Your task to perform on an android device: turn off data saver in the chrome app Image 0: 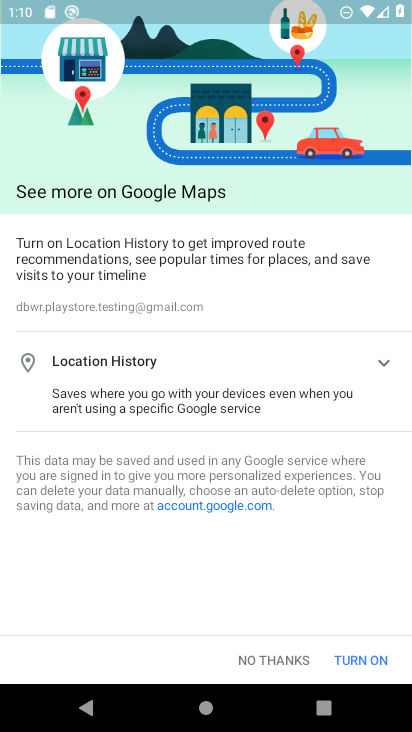
Step 0: click (372, 651)
Your task to perform on an android device: turn off data saver in the chrome app Image 1: 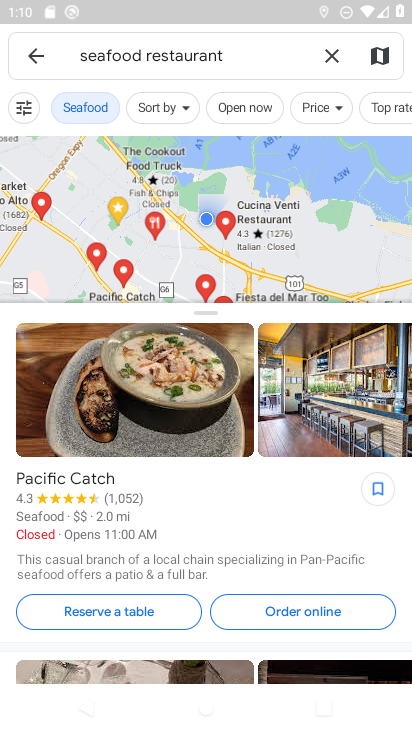
Step 1: click (338, 51)
Your task to perform on an android device: turn off data saver in the chrome app Image 2: 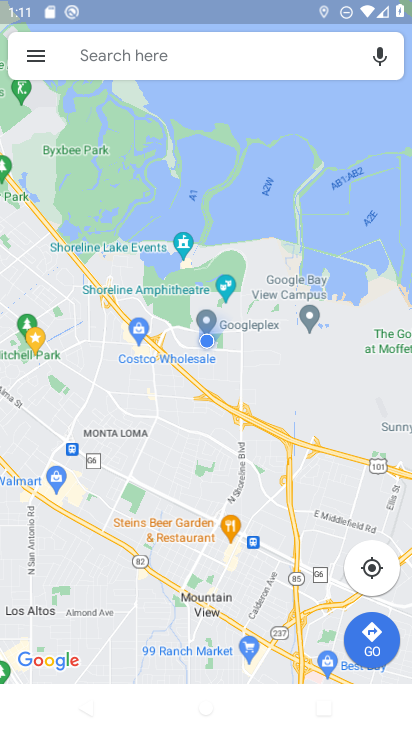
Step 2: press home button
Your task to perform on an android device: turn off data saver in the chrome app Image 3: 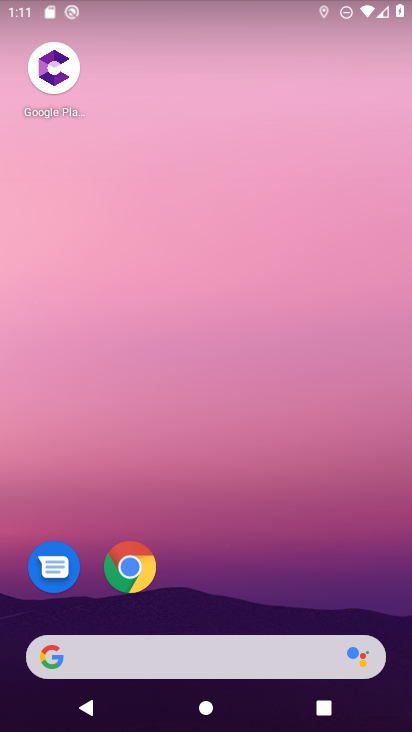
Step 3: drag from (390, 702) to (372, 75)
Your task to perform on an android device: turn off data saver in the chrome app Image 4: 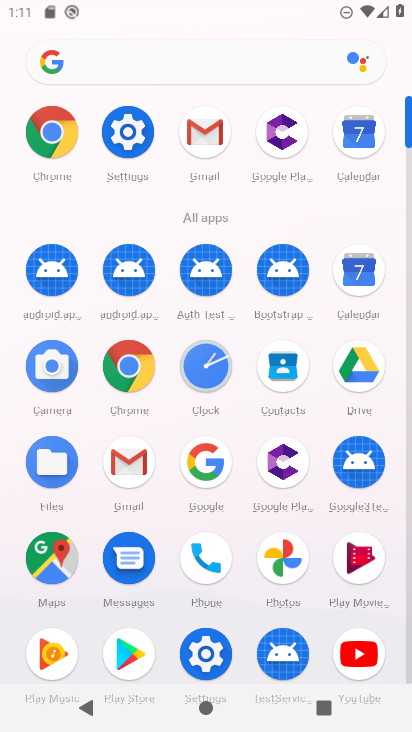
Step 4: click (60, 126)
Your task to perform on an android device: turn off data saver in the chrome app Image 5: 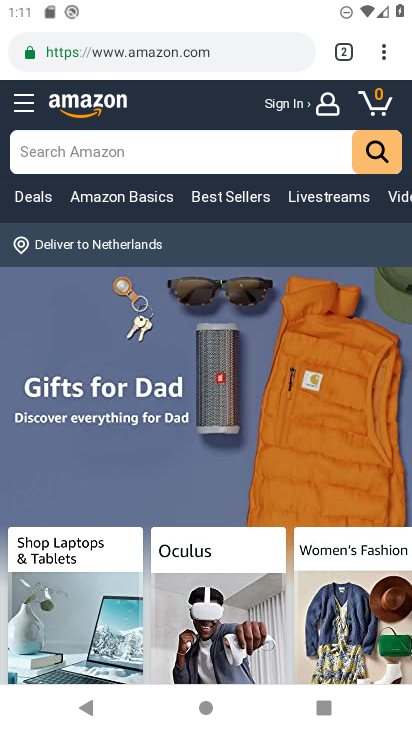
Step 5: click (378, 44)
Your task to perform on an android device: turn off data saver in the chrome app Image 6: 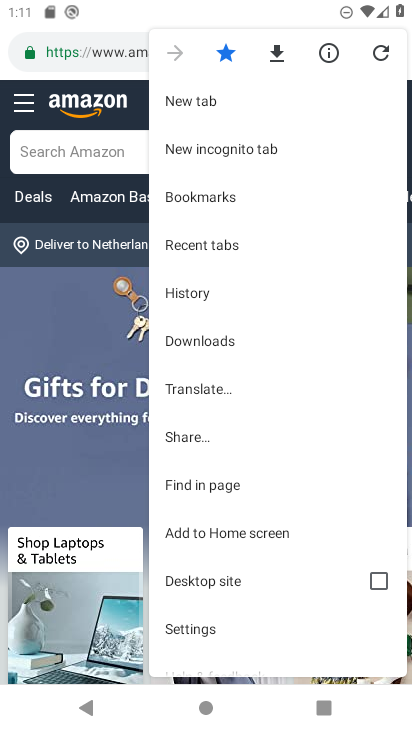
Step 6: click (199, 630)
Your task to perform on an android device: turn off data saver in the chrome app Image 7: 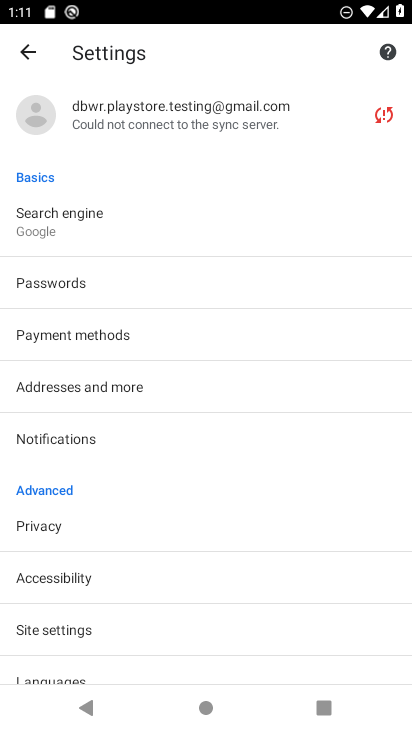
Step 7: drag from (211, 627) to (220, 327)
Your task to perform on an android device: turn off data saver in the chrome app Image 8: 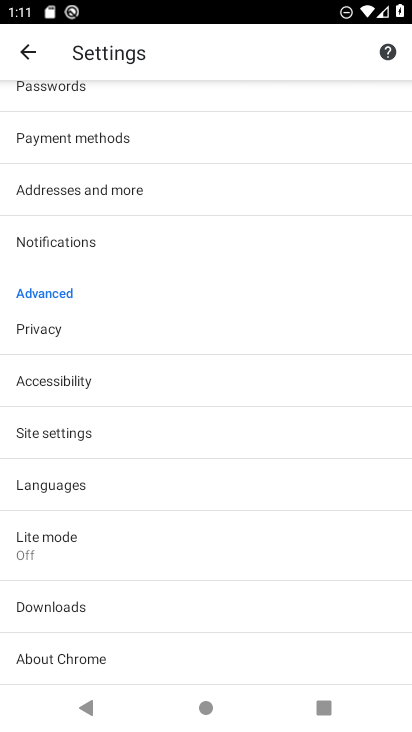
Step 8: click (51, 536)
Your task to perform on an android device: turn off data saver in the chrome app Image 9: 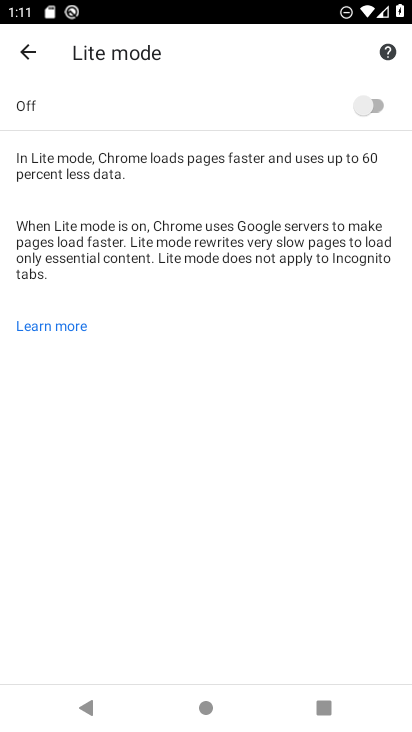
Step 9: task complete